Your task to perform on an android device: Clear the shopping cart on walmart.com. Add jbl charge 4 to the cart on walmart.com Image 0: 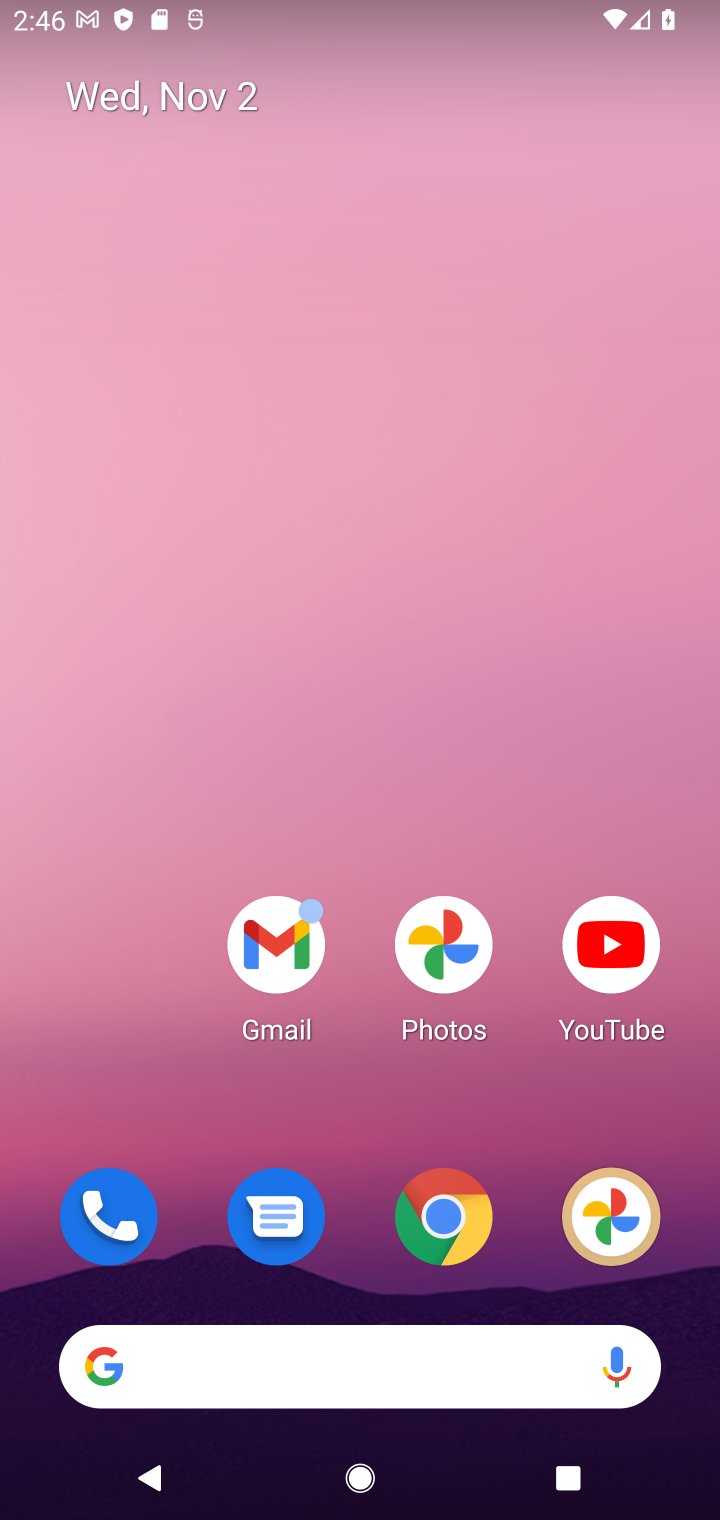
Step 0: click (440, 1212)
Your task to perform on an android device: Clear the shopping cart on walmart.com. Add jbl charge 4 to the cart on walmart.com Image 1: 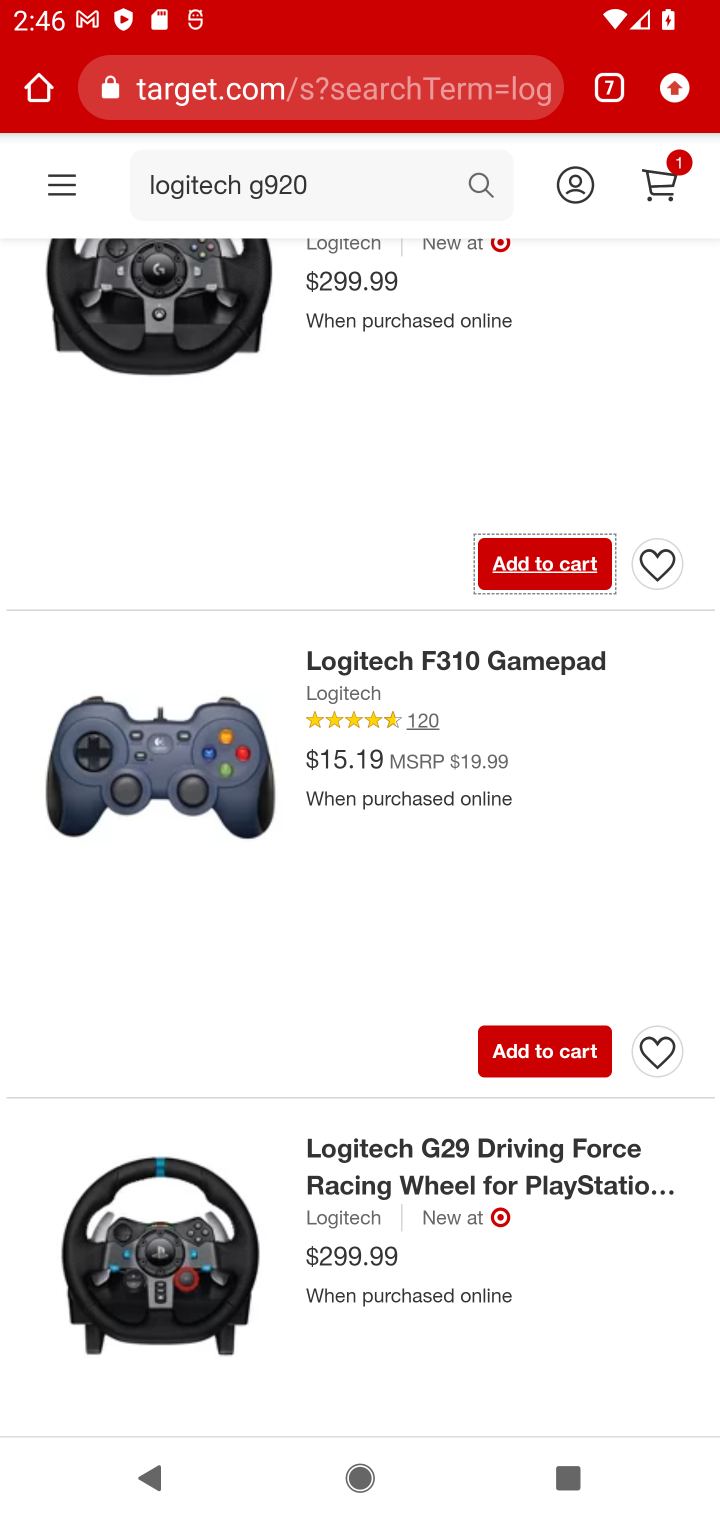
Step 1: click (595, 88)
Your task to perform on an android device: Clear the shopping cart on walmart.com. Add jbl charge 4 to the cart on walmart.com Image 2: 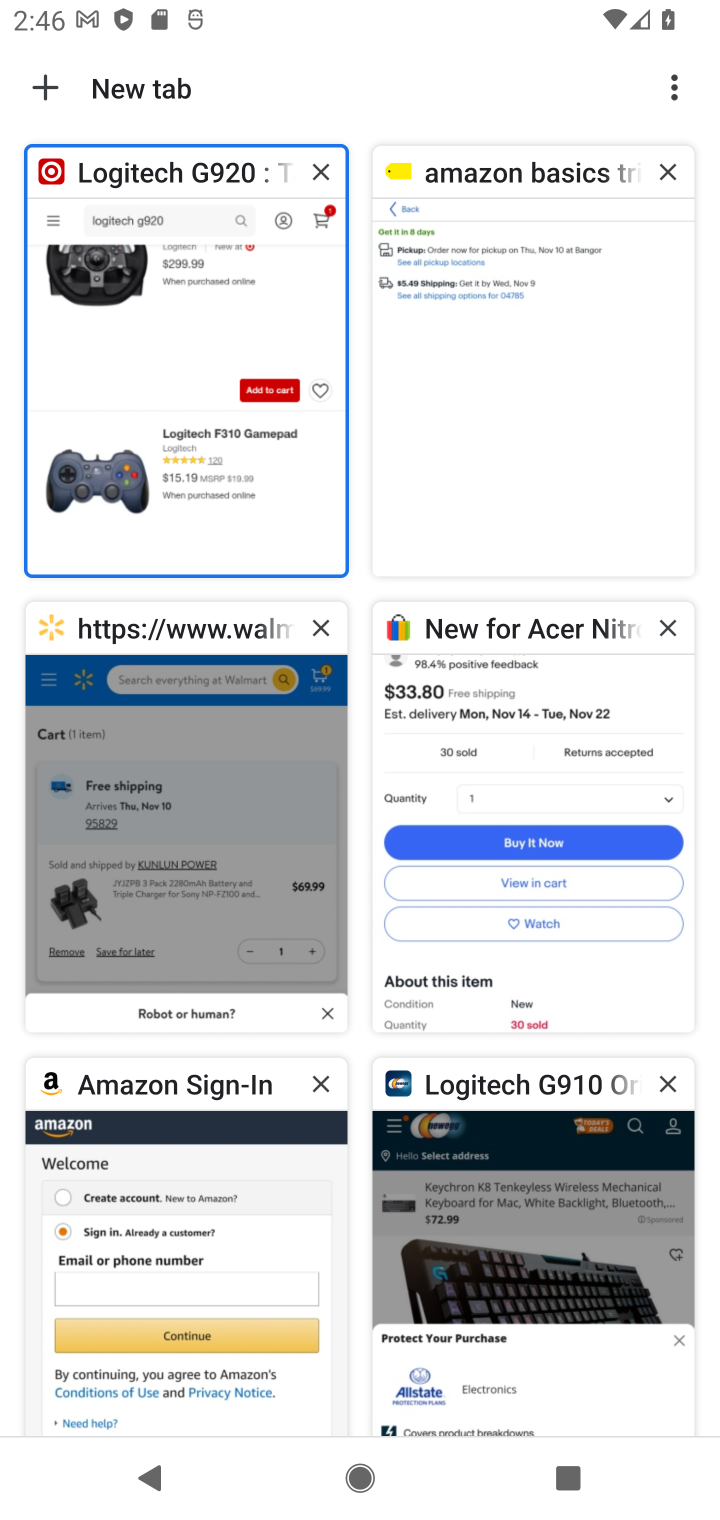
Step 2: click (226, 828)
Your task to perform on an android device: Clear the shopping cart on walmart.com. Add jbl charge 4 to the cart on walmart.com Image 3: 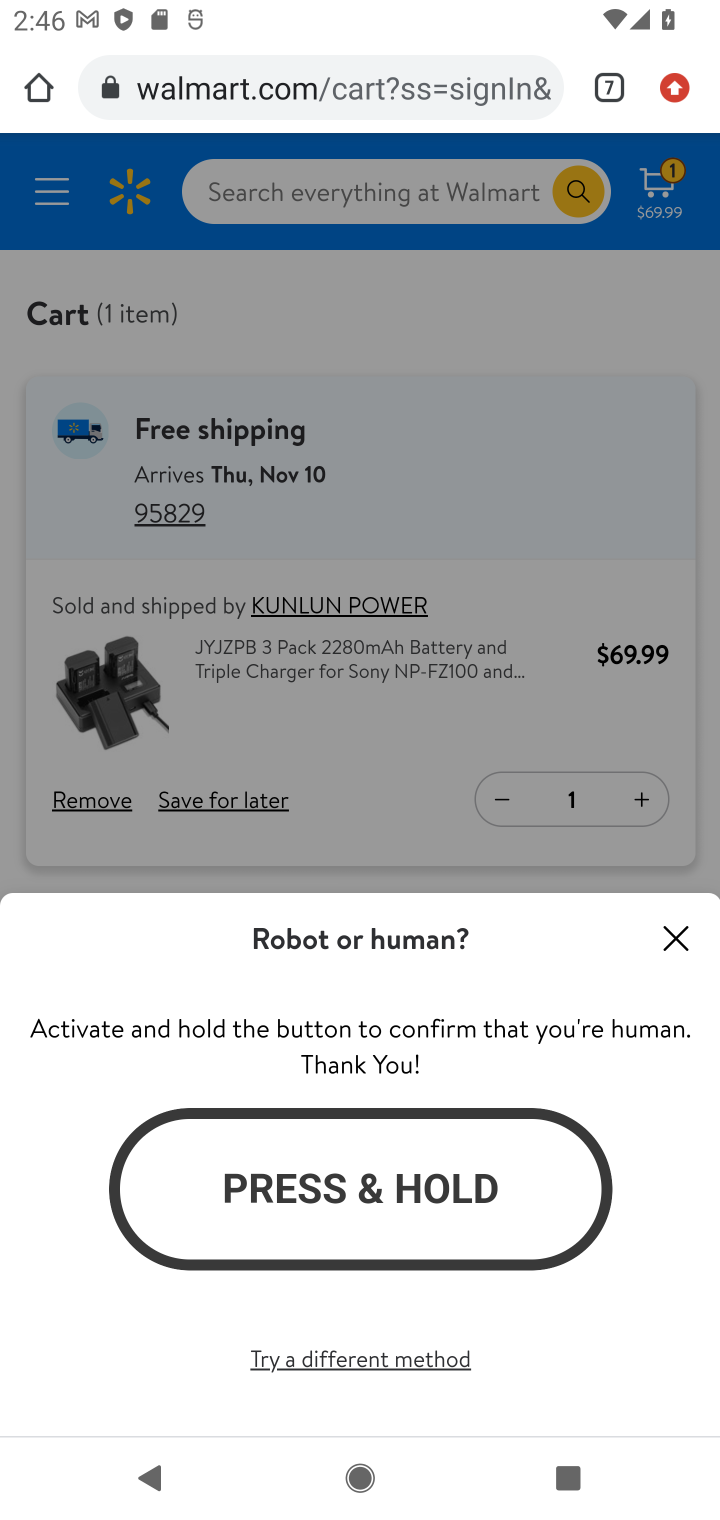
Step 3: click (388, 1212)
Your task to perform on an android device: Clear the shopping cart on walmart.com. Add jbl charge 4 to the cart on walmart.com Image 4: 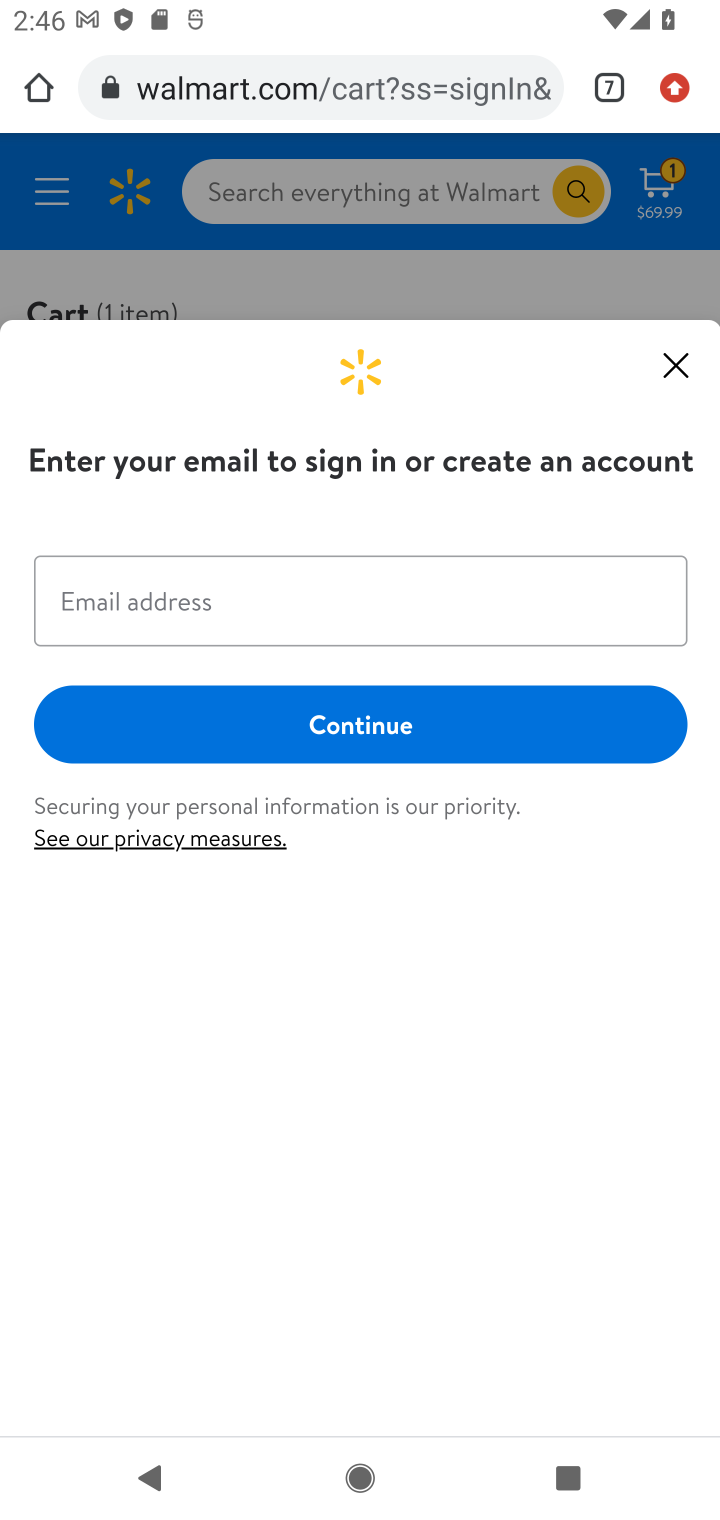
Step 4: click (674, 353)
Your task to perform on an android device: Clear the shopping cart on walmart.com. Add jbl charge 4 to the cart on walmart.com Image 5: 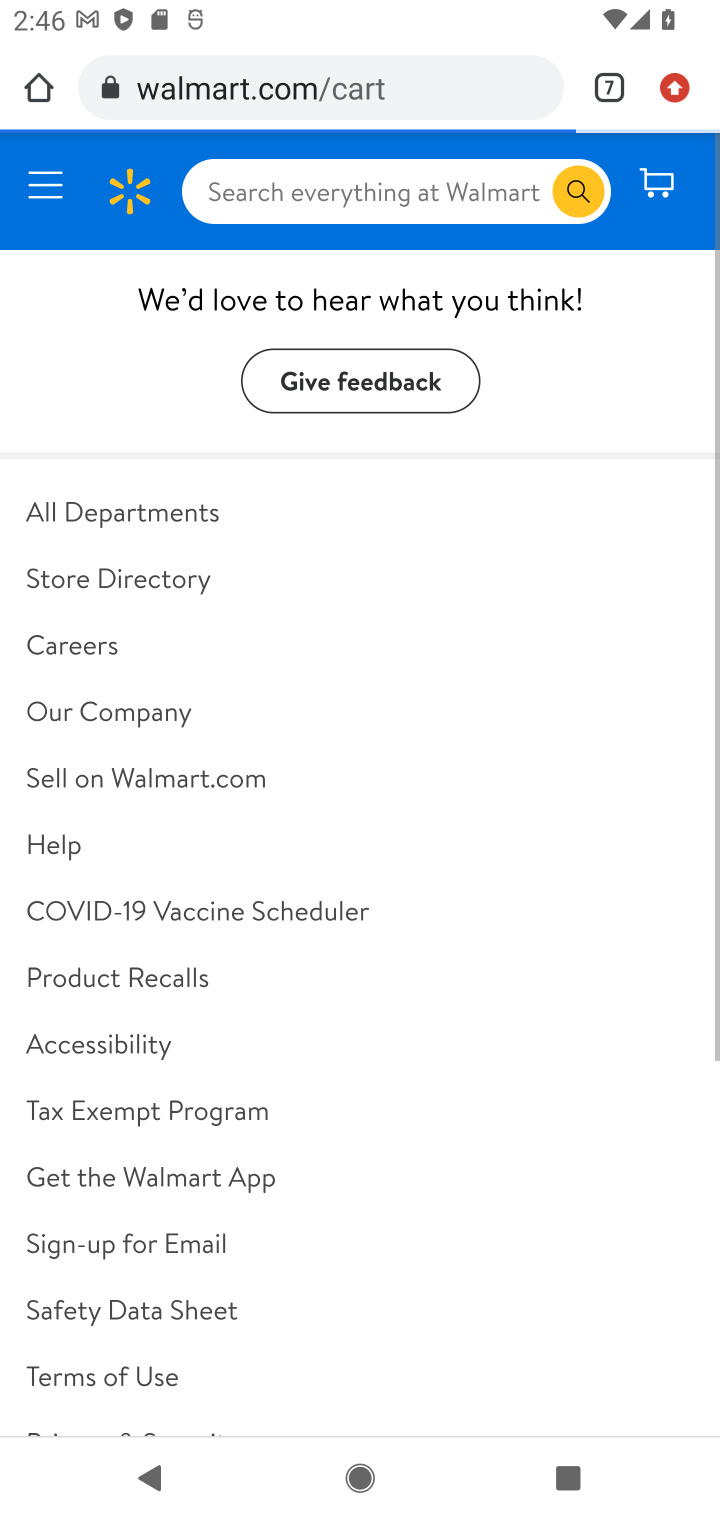
Step 5: click (428, 182)
Your task to perform on an android device: Clear the shopping cart on walmart.com. Add jbl charge 4 to the cart on walmart.com Image 6: 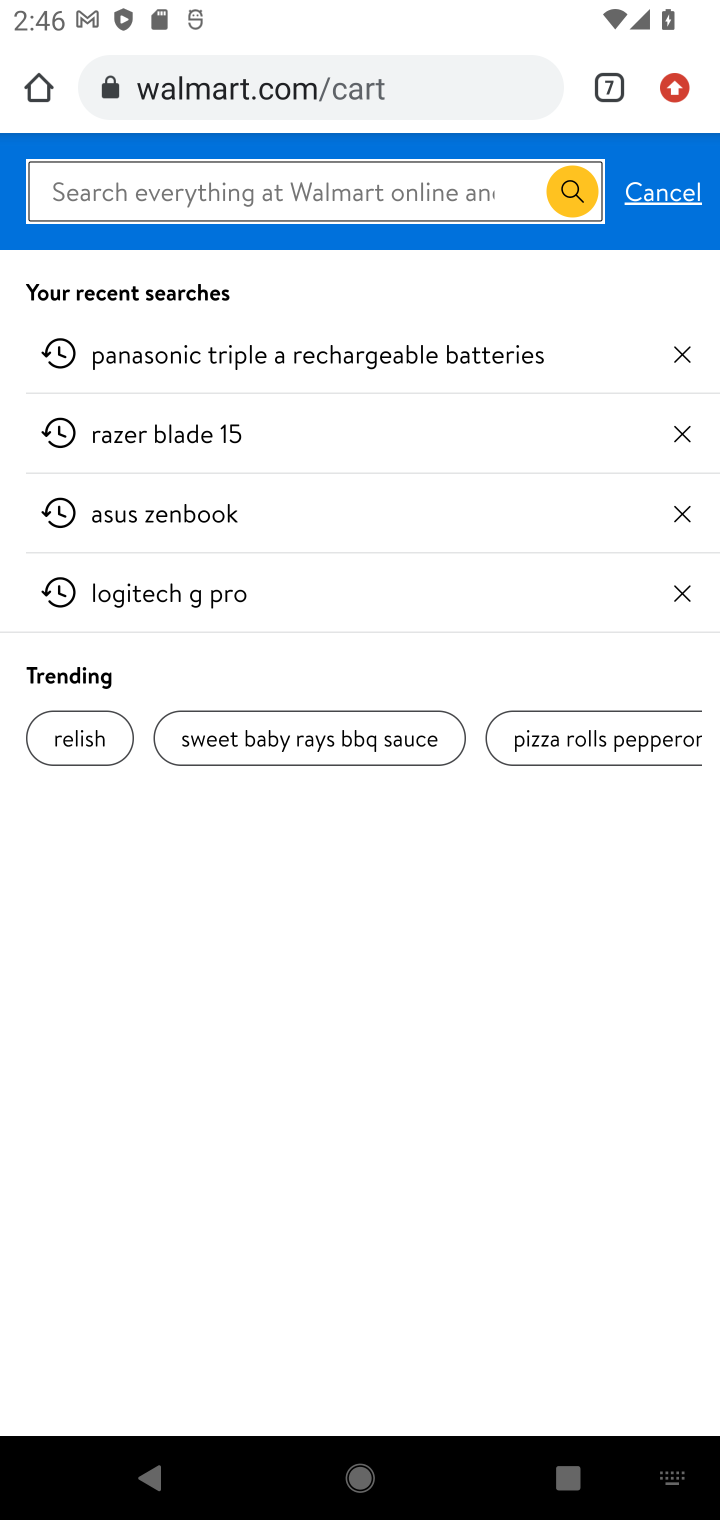
Step 6: type "jbl charge 4"
Your task to perform on an android device: Clear the shopping cart on walmart.com. Add jbl charge 4 to the cart on walmart.com Image 7: 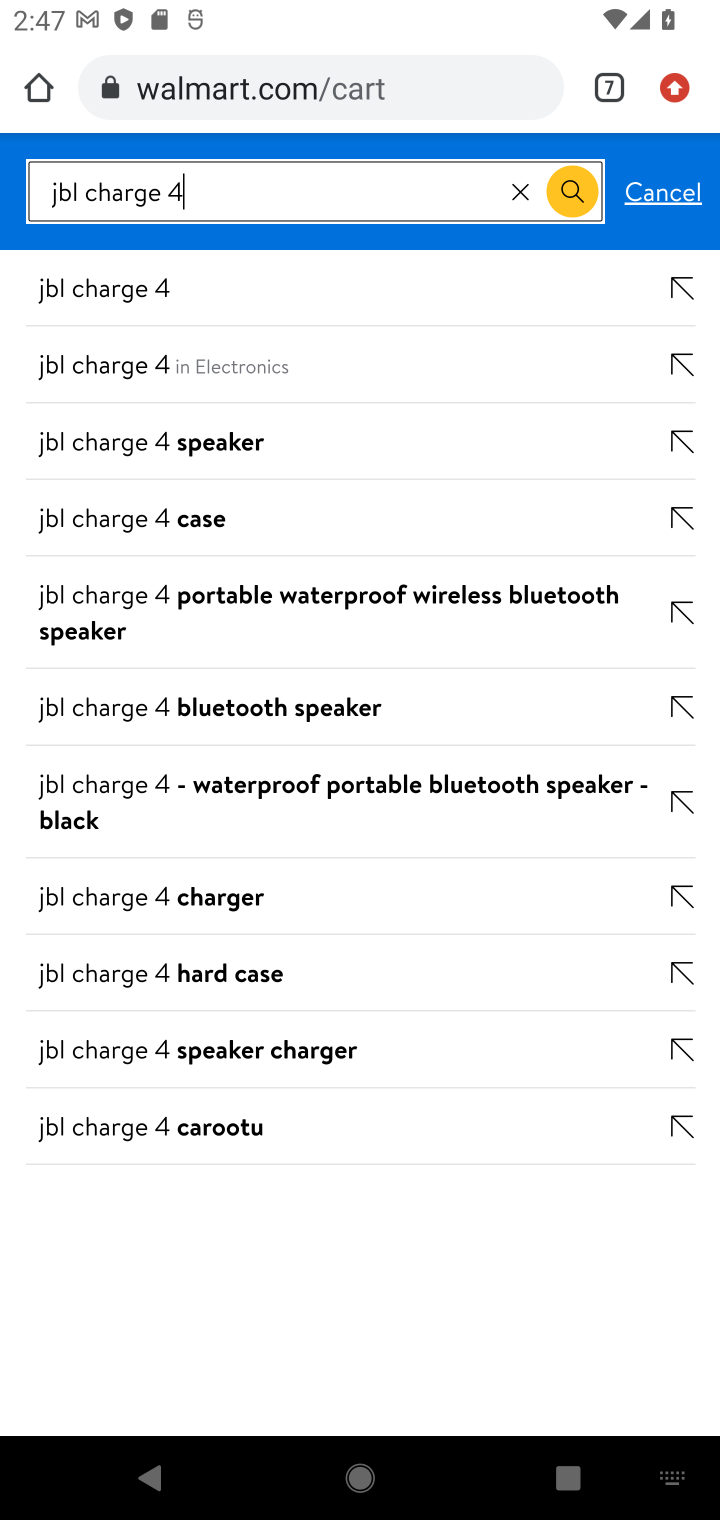
Step 7: click (128, 372)
Your task to perform on an android device: Clear the shopping cart on walmart.com. Add jbl charge 4 to the cart on walmart.com Image 8: 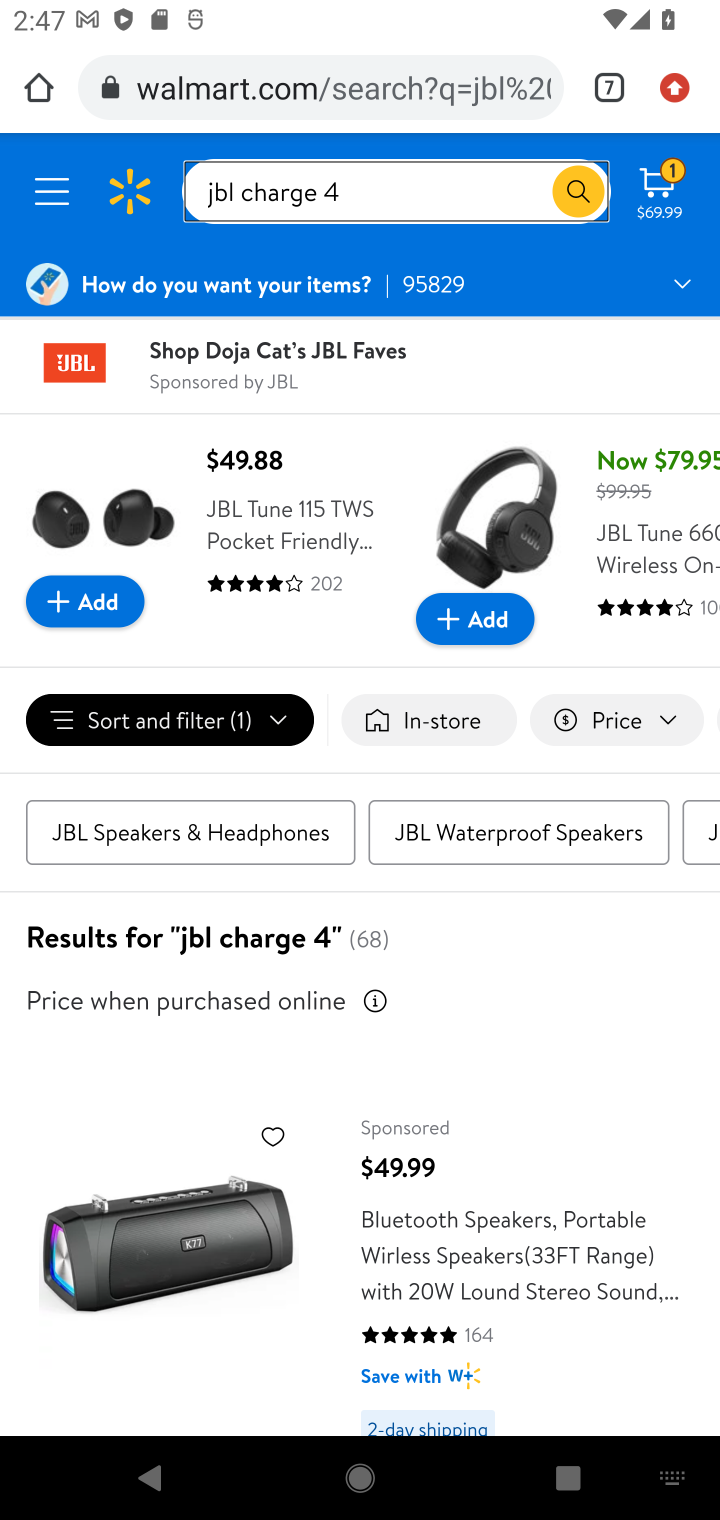
Step 8: click (67, 597)
Your task to perform on an android device: Clear the shopping cart on walmart.com. Add jbl charge 4 to the cart on walmart.com Image 9: 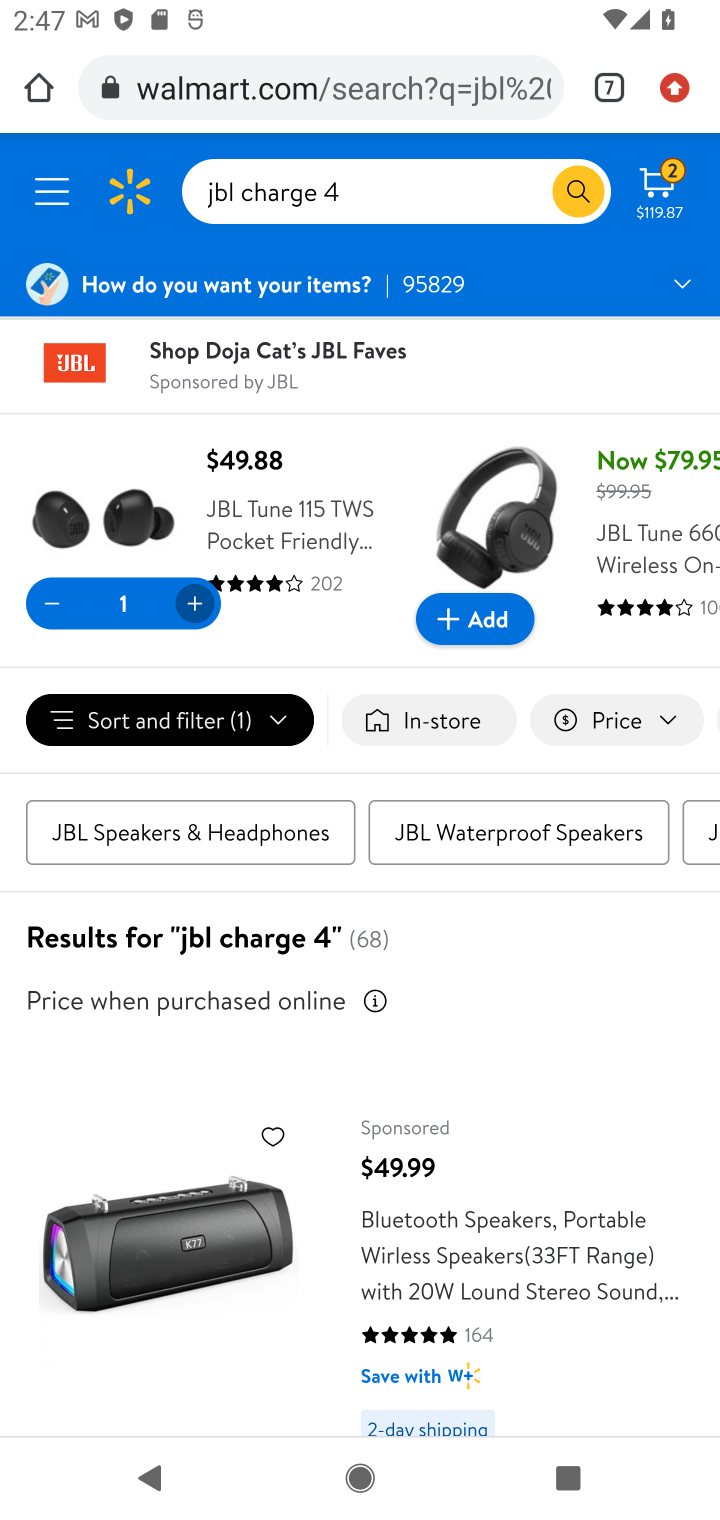
Step 9: task complete